Your task to perform on an android device: change the clock display to show seconds Image 0: 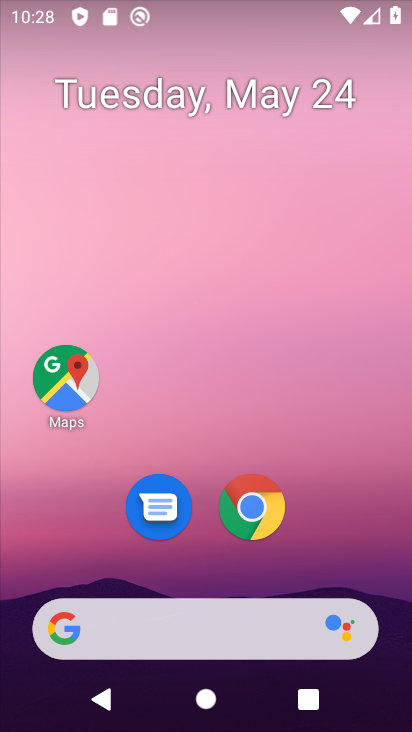
Step 0: drag from (247, 632) to (205, 29)
Your task to perform on an android device: change the clock display to show seconds Image 1: 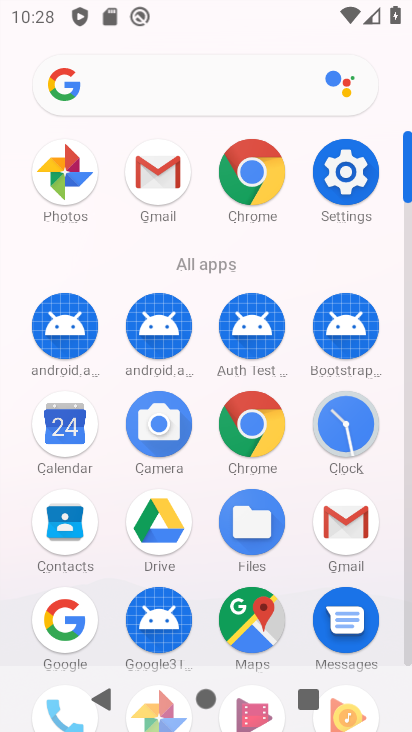
Step 1: click (334, 423)
Your task to perform on an android device: change the clock display to show seconds Image 2: 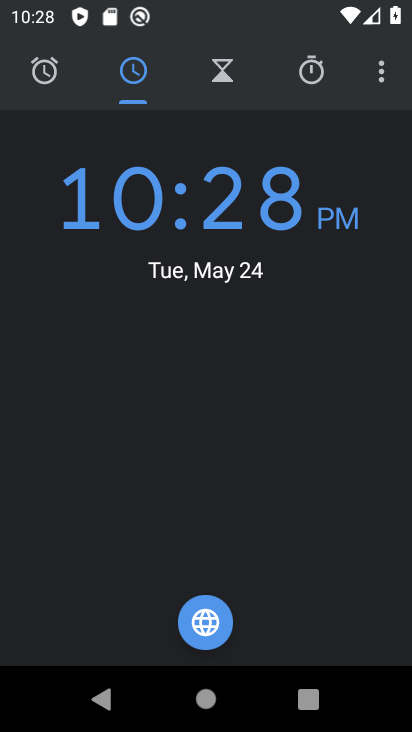
Step 2: click (381, 74)
Your task to perform on an android device: change the clock display to show seconds Image 3: 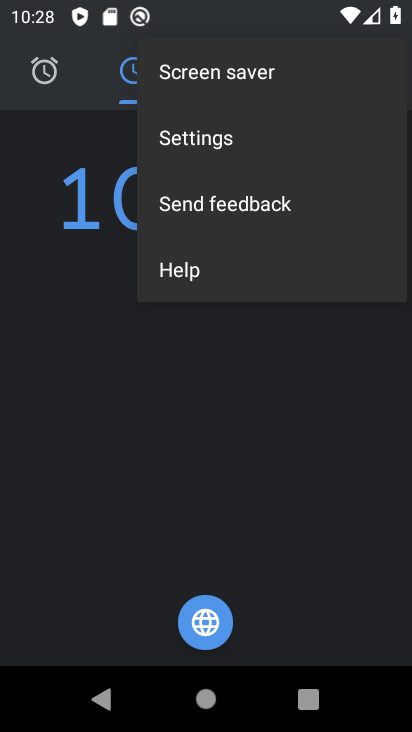
Step 3: click (294, 147)
Your task to perform on an android device: change the clock display to show seconds Image 4: 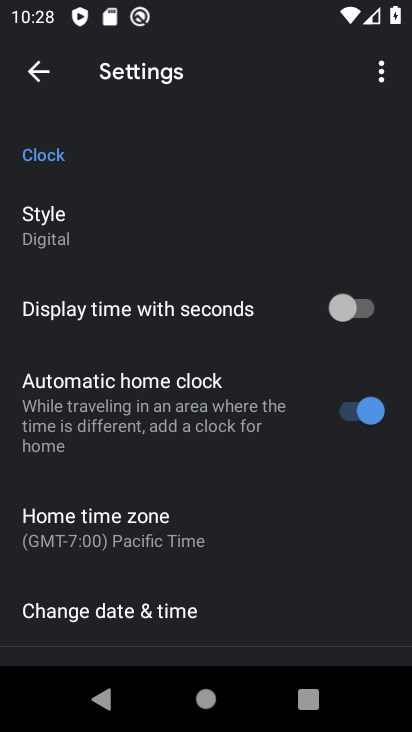
Step 4: click (369, 300)
Your task to perform on an android device: change the clock display to show seconds Image 5: 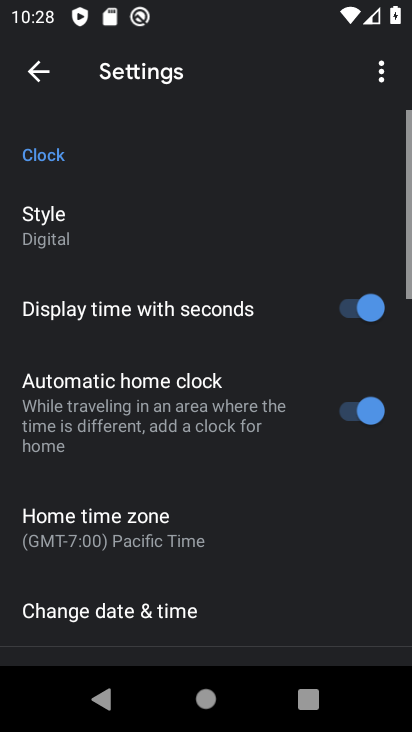
Step 5: task complete